Your task to perform on an android device: turn off sleep mode Image 0: 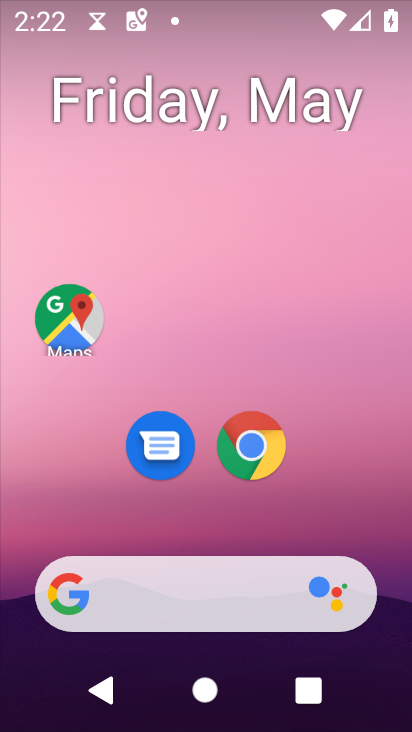
Step 0: press home button
Your task to perform on an android device: turn off sleep mode Image 1: 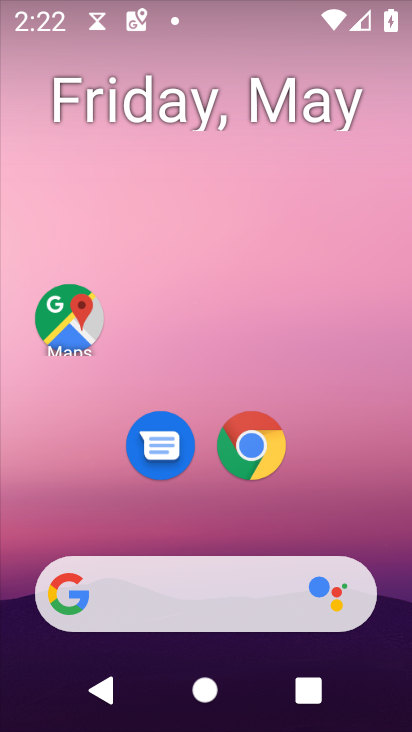
Step 1: drag from (216, 517) to (232, 57)
Your task to perform on an android device: turn off sleep mode Image 2: 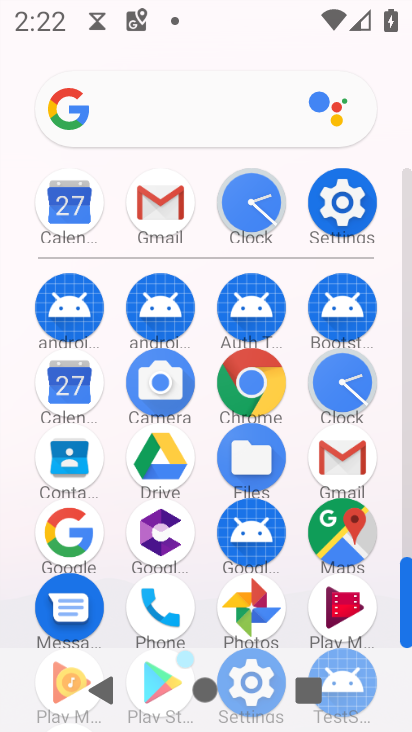
Step 2: click (339, 197)
Your task to perform on an android device: turn off sleep mode Image 3: 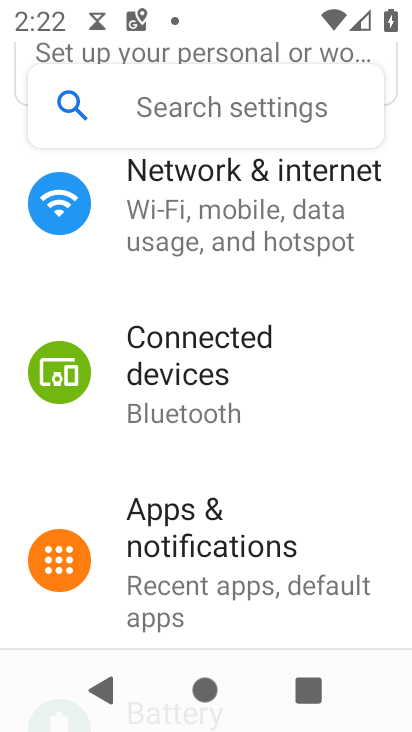
Step 3: drag from (228, 612) to (296, 62)
Your task to perform on an android device: turn off sleep mode Image 4: 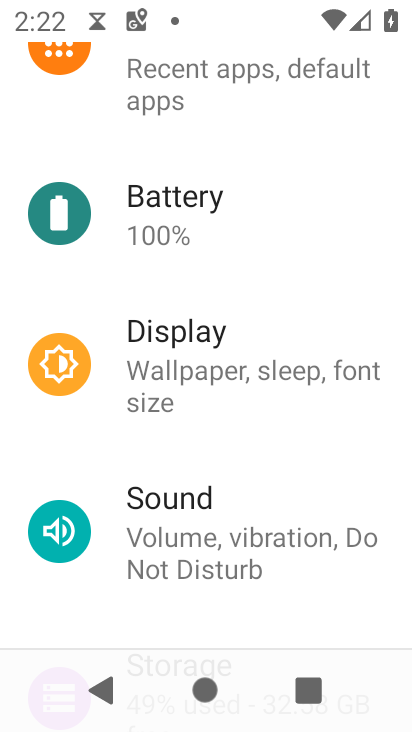
Step 4: click (238, 343)
Your task to perform on an android device: turn off sleep mode Image 5: 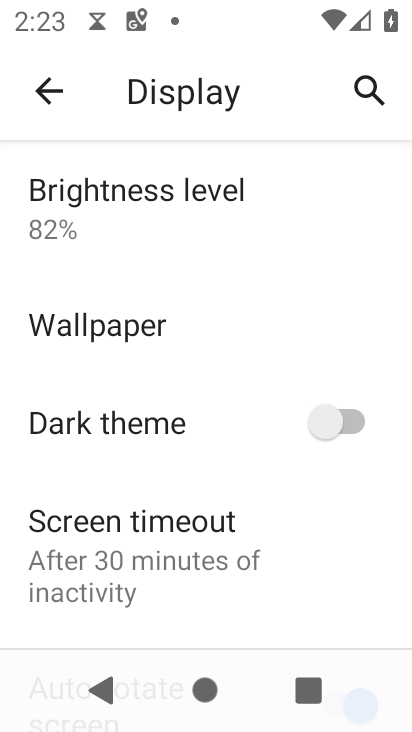
Step 5: drag from (220, 588) to (258, 137)
Your task to perform on an android device: turn off sleep mode Image 6: 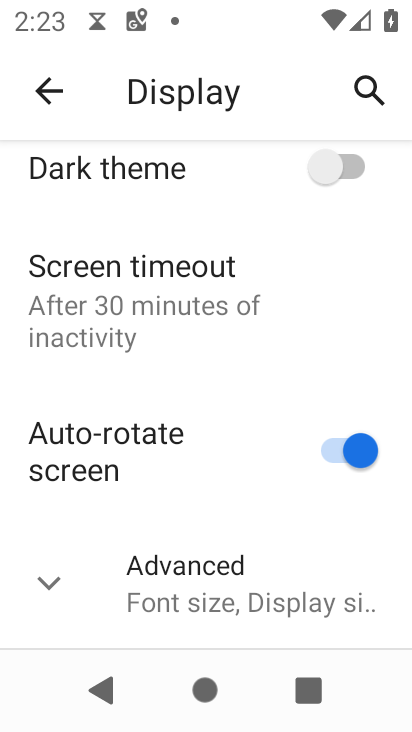
Step 6: click (41, 581)
Your task to perform on an android device: turn off sleep mode Image 7: 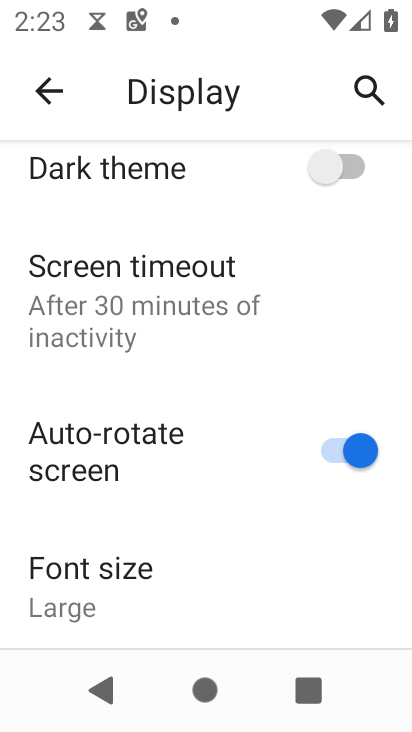
Step 7: task complete